Your task to perform on an android device: Open wifi settings Image 0: 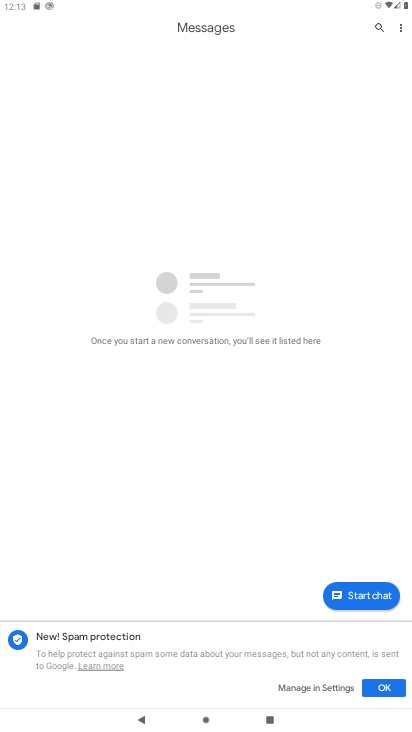
Step 0: press home button
Your task to perform on an android device: Open wifi settings Image 1: 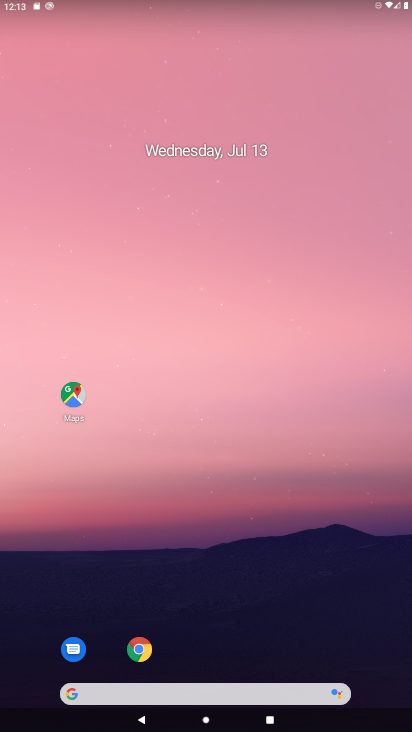
Step 1: drag from (390, 679) to (293, 207)
Your task to perform on an android device: Open wifi settings Image 2: 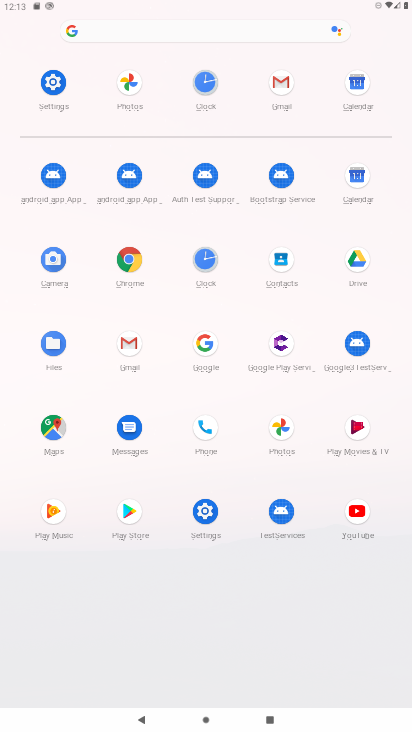
Step 2: click (206, 512)
Your task to perform on an android device: Open wifi settings Image 3: 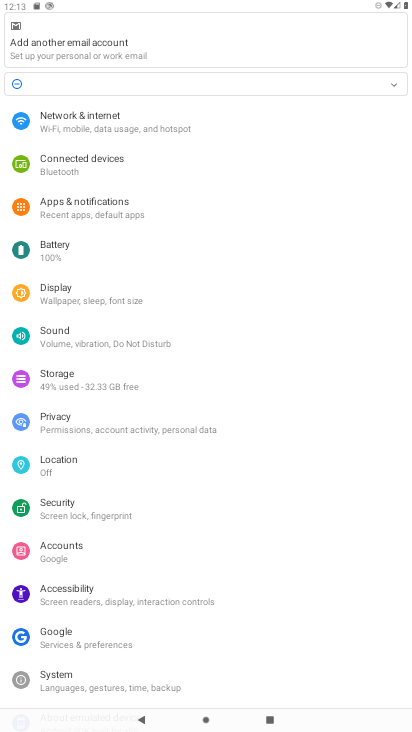
Step 3: click (83, 113)
Your task to perform on an android device: Open wifi settings Image 4: 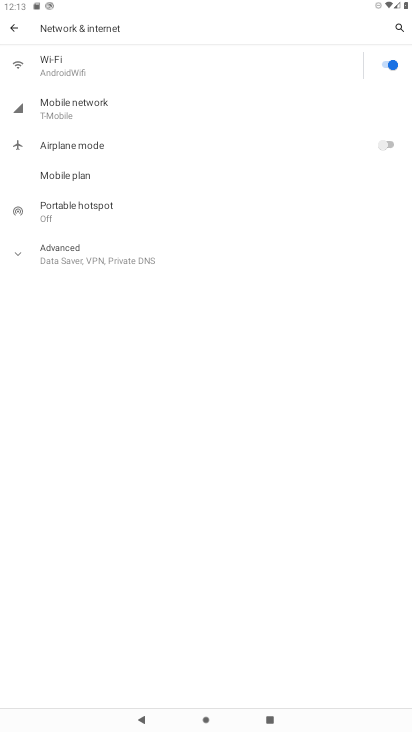
Step 4: click (65, 68)
Your task to perform on an android device: Open wifi settings Image 5: 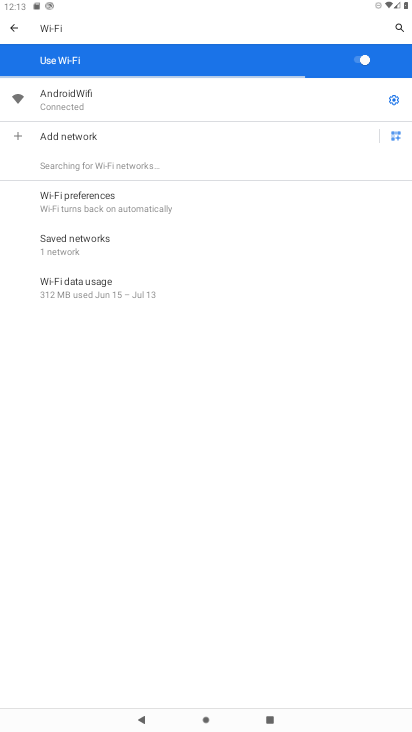
Step 5: task complete